Your task to perform on an android device: What's the weather today? Image 0: 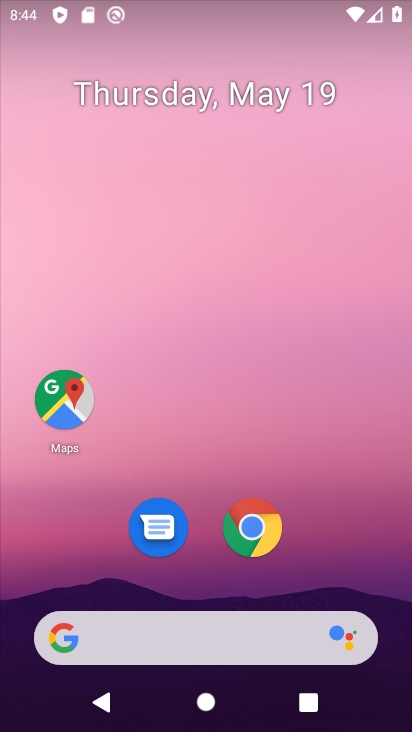
Step 0: drag from (217, 609) to (215, 215)
Your task to perform on an android device: What's the weather today? Image 1: 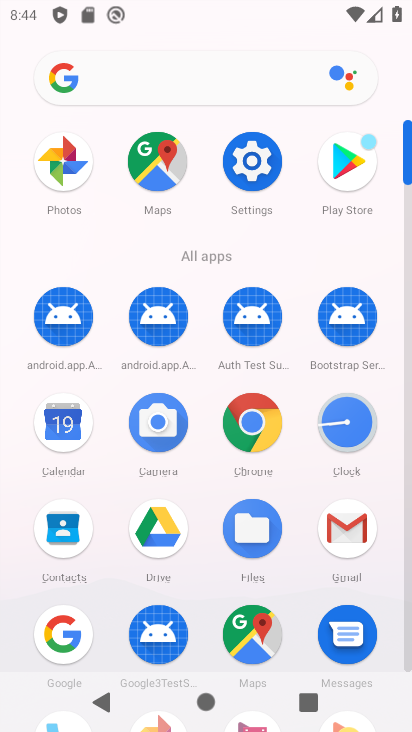
Step 1: click (172, 64)
Your task to perform on an android device: What's the weather today? Image 2: 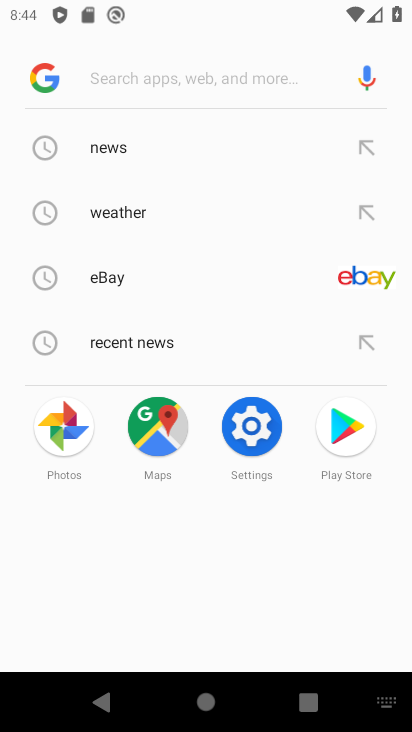
Step 2: type "weather today"
Your task to perform on an android device: What's the weather today? Image 3: 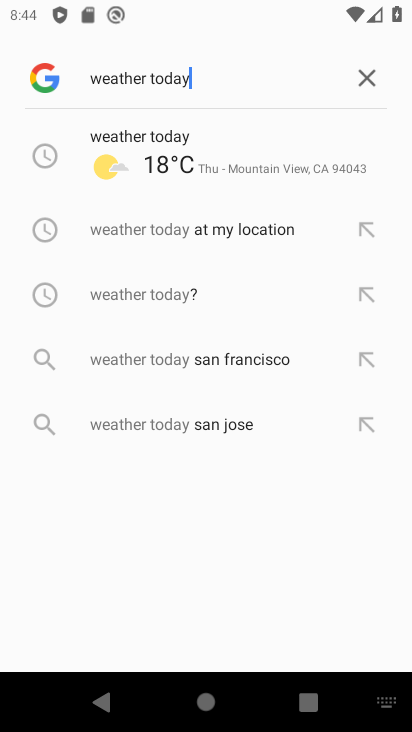
Step 3: click (150, 140)
Your task to perform on an android device: What's the weather today? Image 4: 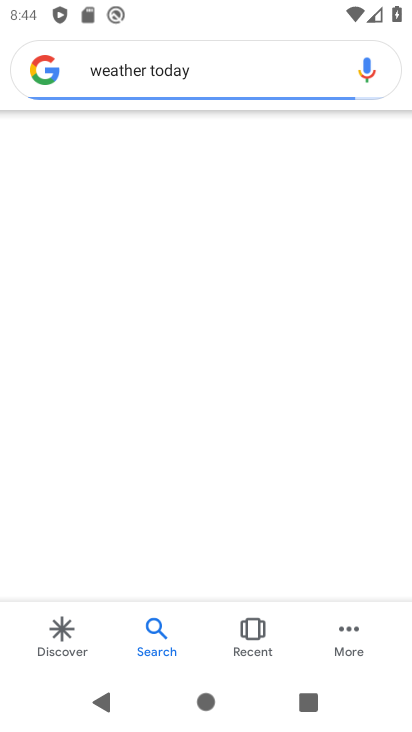
Step 4: task complete